Your task to perform on an android device: clear all cookies in the chrome app Image 0: 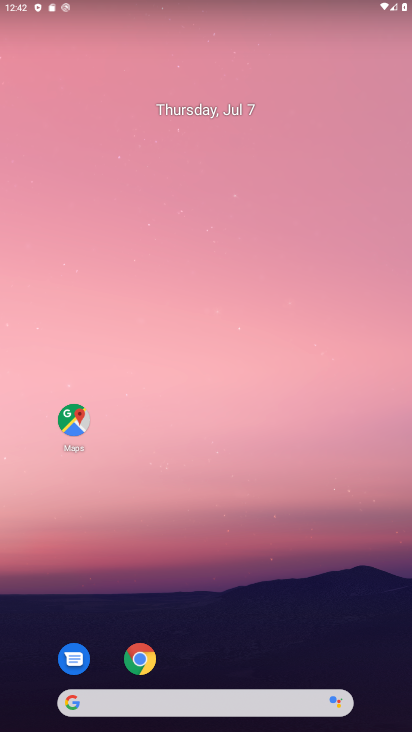
Step 0: click (148, 668)
Your task to perform on an android device: clear all cookies in the chrome app Image 1: 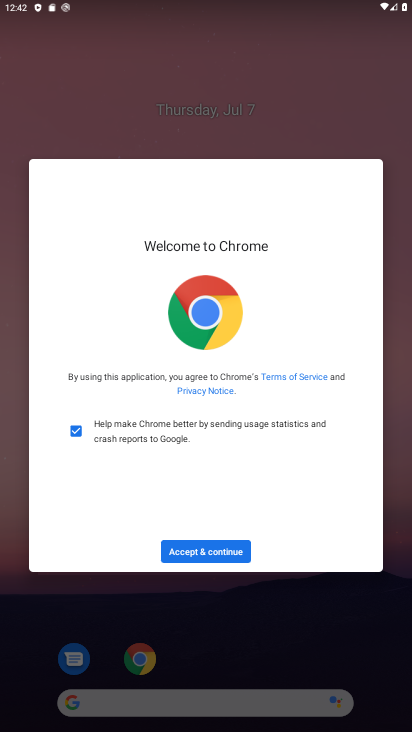
Step 1: click (184, 542)
Your task to perform on an android device: clear all cookies in the chrome app Image 2: 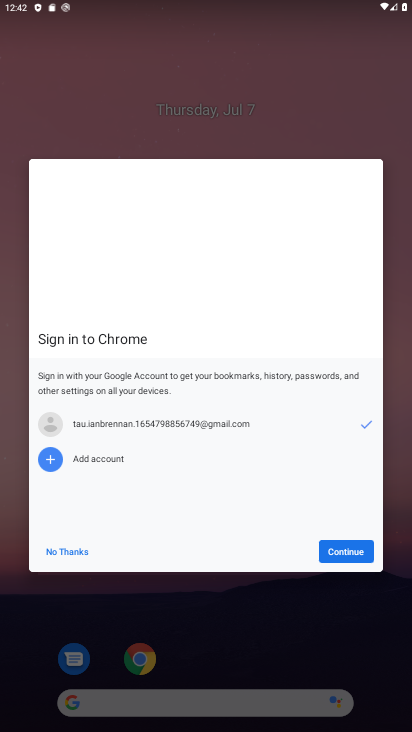
Step 2: click (337, 549)
Your task to perform on an android device: clear all cookies in the chrome app Image 3: 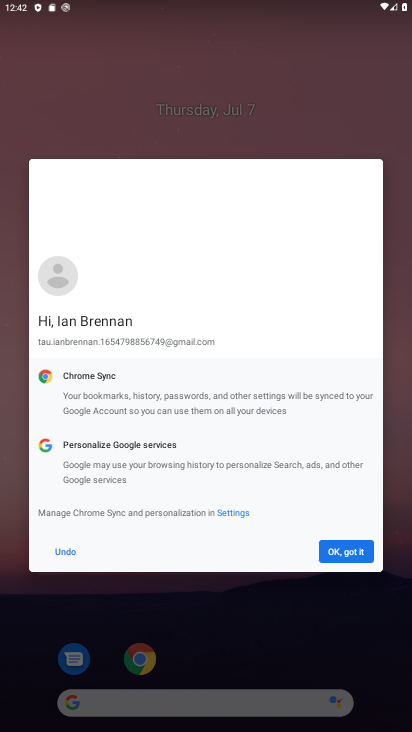
Step 3: click (335, 548)
Your task to perform on an android device: clear all cookies in the chrome app Image 4: 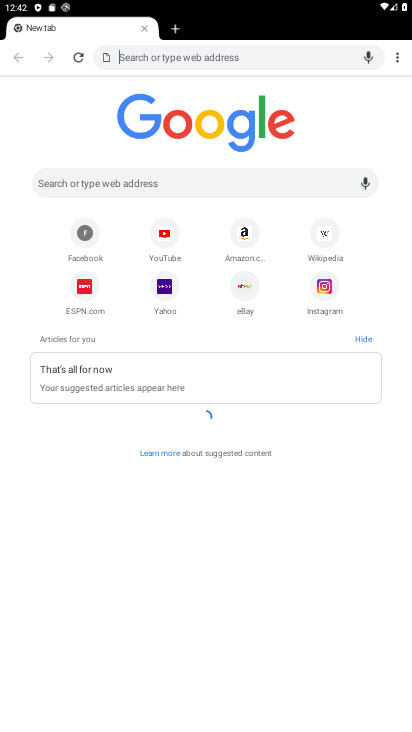
Step 4: drag from (407, 57) to (327, 271)
Your task to perform on an android device: clear all cookies in the chrome app Image 5: 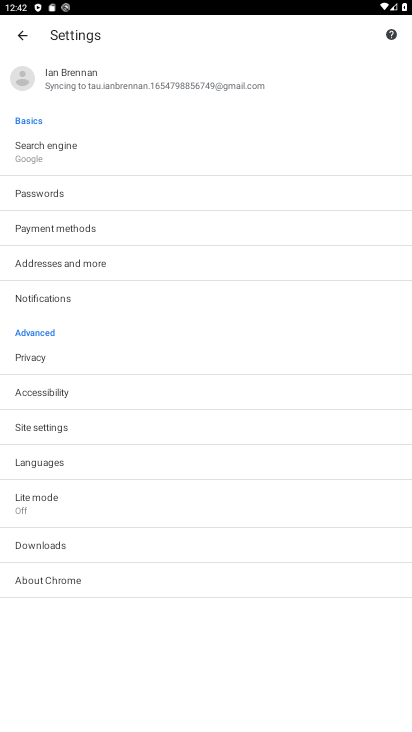
Step 5: click (159, 364)
Your task to perform on an android device: clear all cookies in the chrome app Image 6: 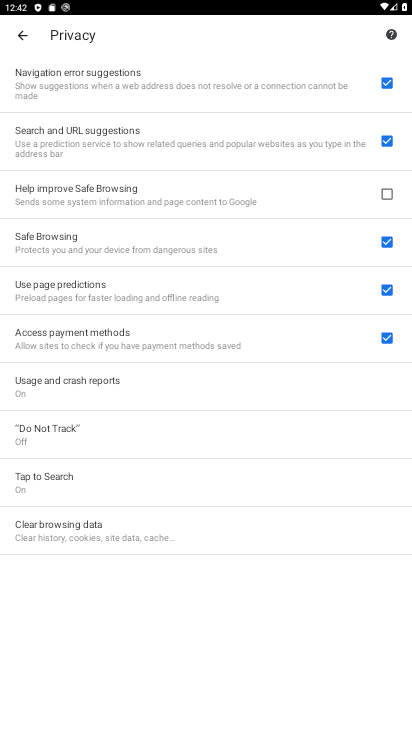
Step 6: click (106, 536)
Your task to perform on an android device: clear all cookies in the chrome app Image 7: 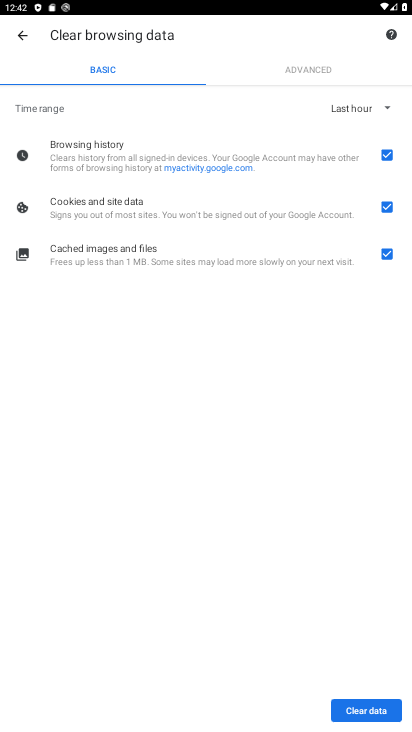
Step 7: click (392, 155)
Your task to perform on an android device: clear all cookies in the chrome app Image 8: 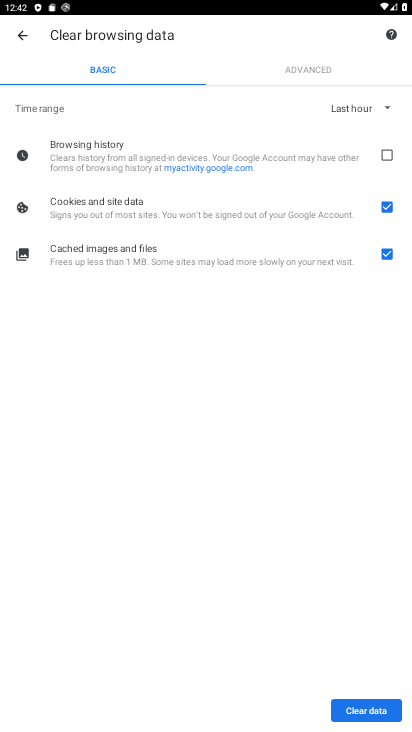
Step 8: click (389, 249)
Your task to perform on an android device: clear all cookies in the chrome app Image 9: 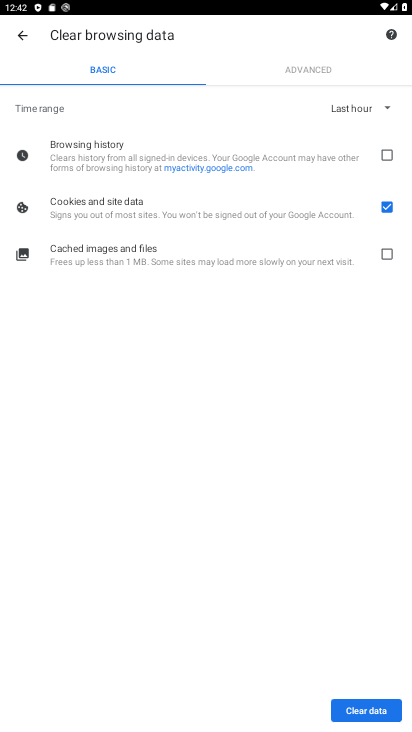
Step 9: click (363, 706)
Your task to perform on an android device: clear all cookies in the chrome app Image 10: 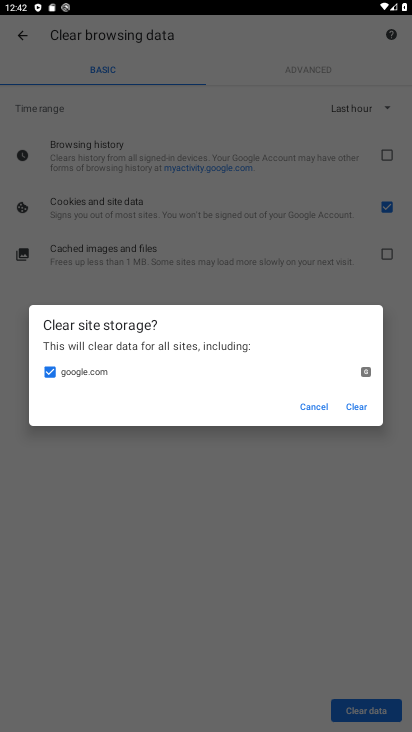
Step 10: click (351, 409)
Your task to perform on an android device: clear all cookies in the chrome app Image 11: 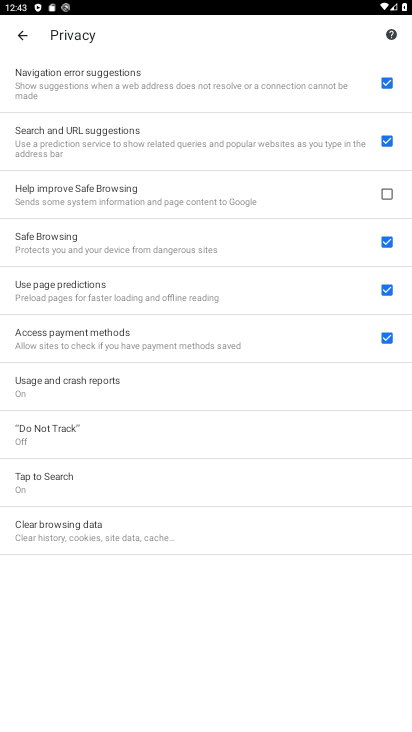
Step 11: task complete